Your task to perform on an android device: Open Android settings Image 0: 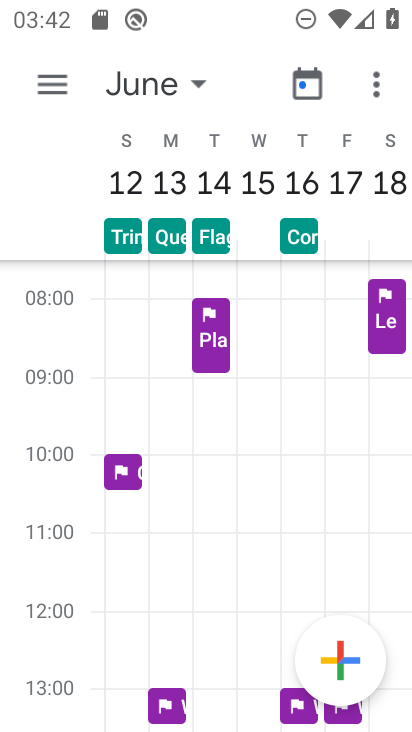
Step 0: press home button
Your task to perform on an android device: Open Android settings Image 1: 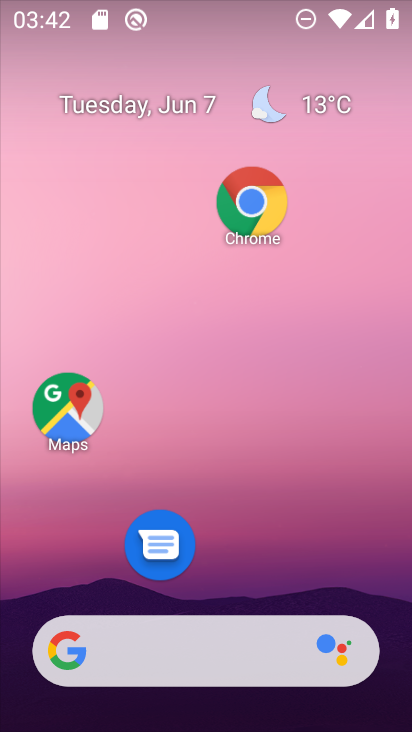
Step 1: drag from (256, 568) to (264, 229)
Your task to perform on an android device: Open Android settings Image 2: 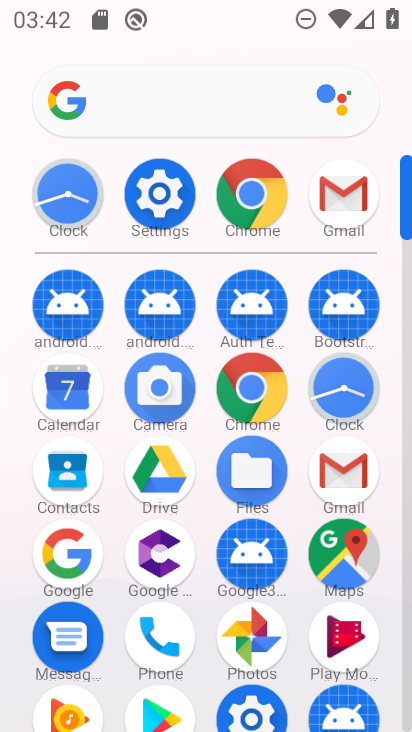
Step 2: click (138, 189)
Your task to perform on an android device: Open Android settings Image 3: 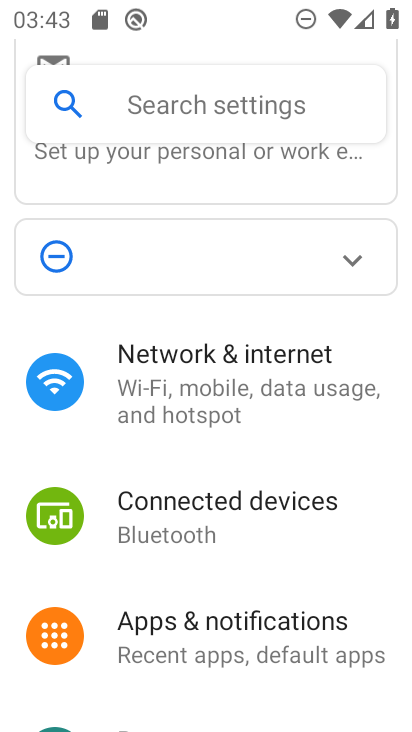
Step 3: task complete